Your task to perform on an android device: open wifi settings Image 0: 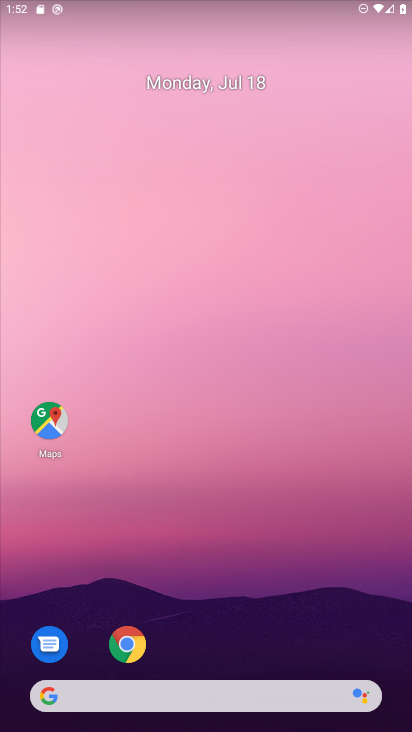
Step 0: drag from (273, 8) to (276, 615)
Your task to perform on an android device: open wifi settings Image 1: 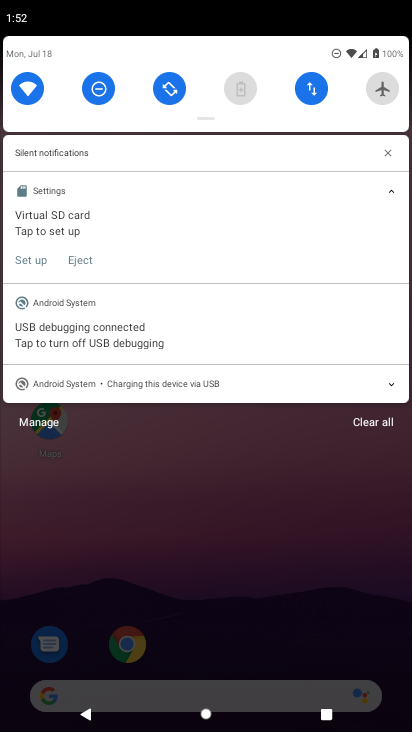
Step 1: click (30, 89)
Your task to perform on an android device: open wifi settings Image 2: 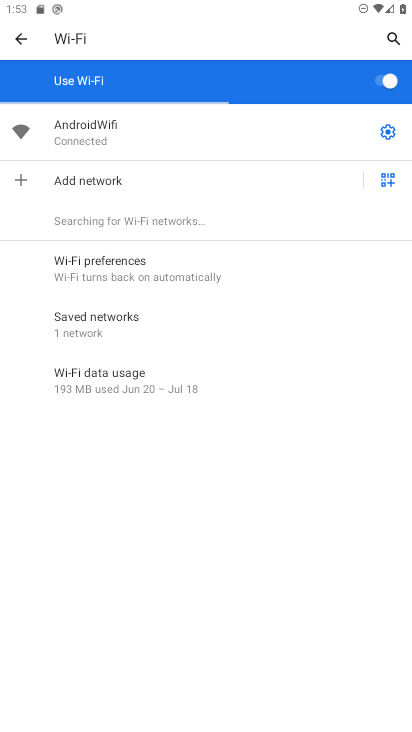
Step 2: task complete